Your task to perform on an android device: find snoozed emails in the gmail app Image 0: 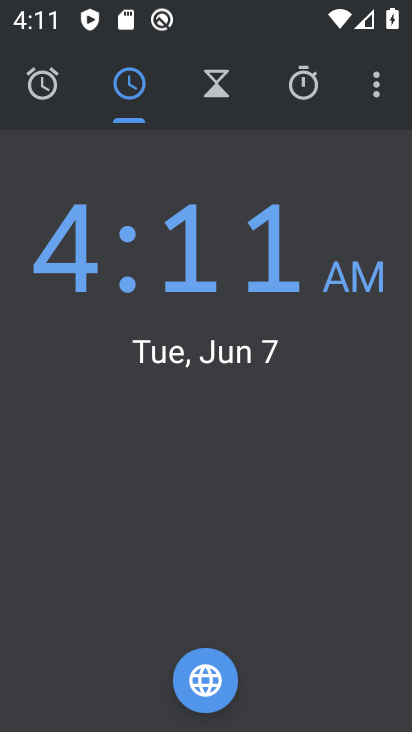
Step 0: press home button
Your task to perform on an android device: find snoozed emails in the gmail app Image 1: 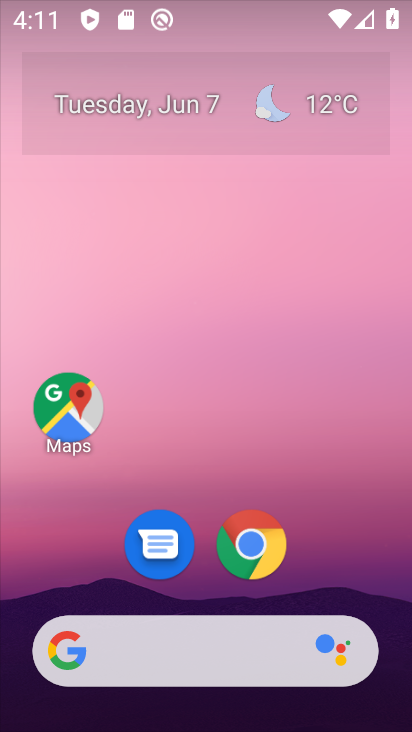
Step 1: task complete